Your task to perform on an android device: turn smart compose on in the gmail app Image 0: 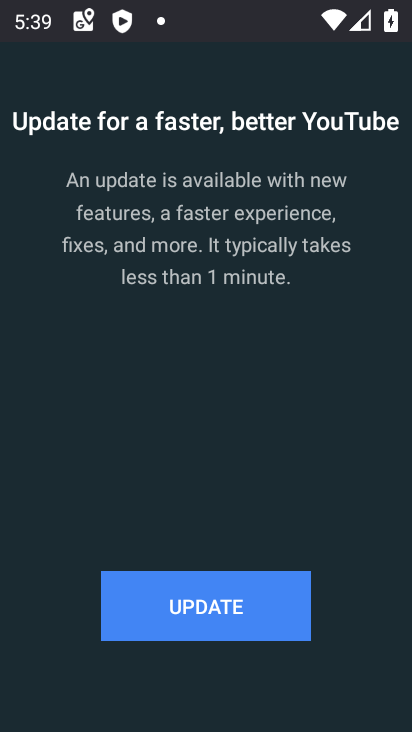
Step 0: press home button
Your task to perform on an android device: turn smart compose on in the gmail app Image 1: 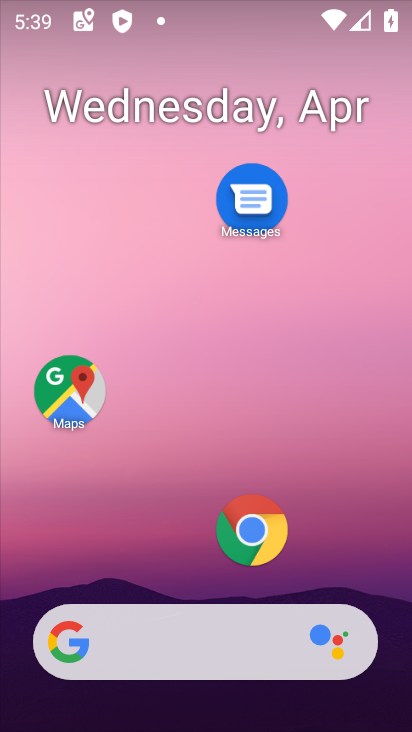
Step 1: drag from (169, 493) to (285, 51)
Your task to perform on an android device: turn smart compose on in the gmail app Image 2: 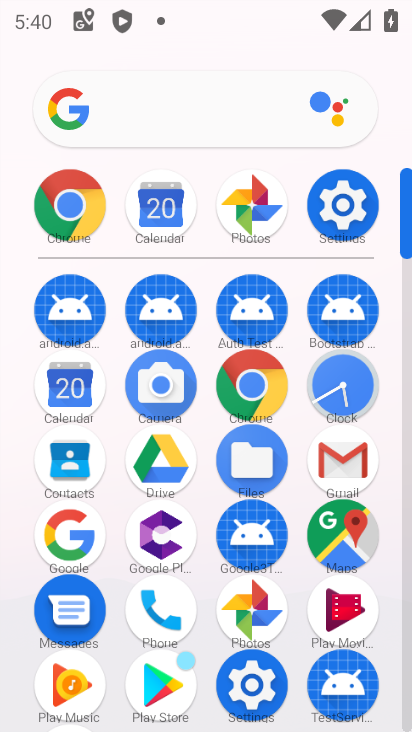
Step 2: click (344, 455)
Your task to perform on an android device: turn smart compose on in the gmail app Image 3: 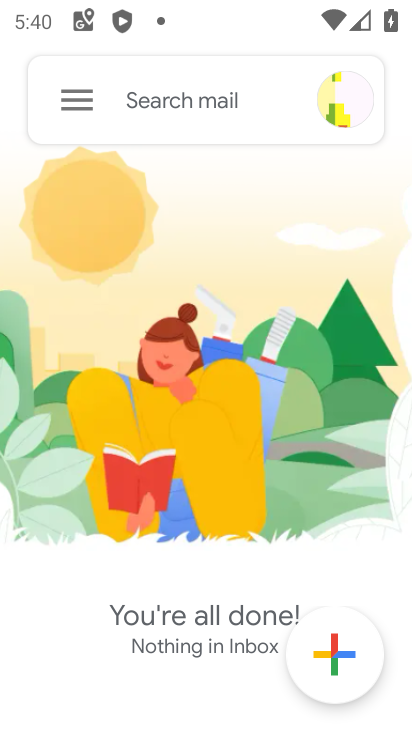
Step 3: click (79, 97)
Your task to perform on an android device: turn smart compose on in the gmail app Image 4: 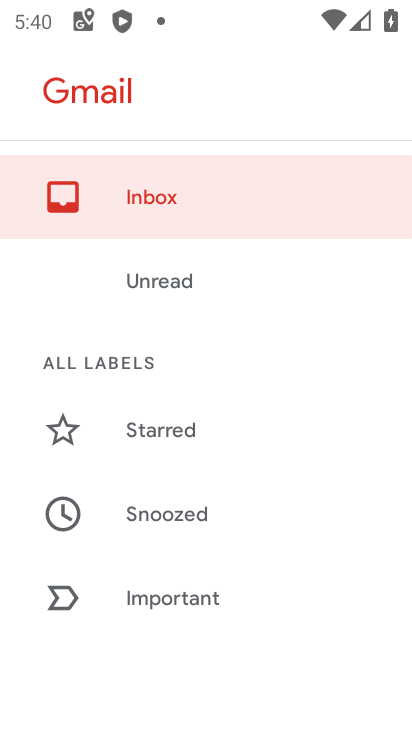
Step 4: drag from (153, 467) to (171, 287)
Your task to perform on an android device: turn smart compose on in the gmail app Image 5: 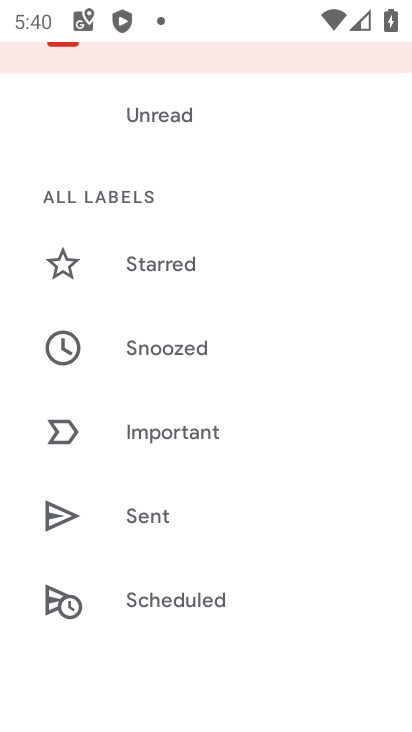
Step 5: drag from (160, 543) to (175, 365)
Your task to perform on an android device: turn smart compose on in the gmail app Image 6: 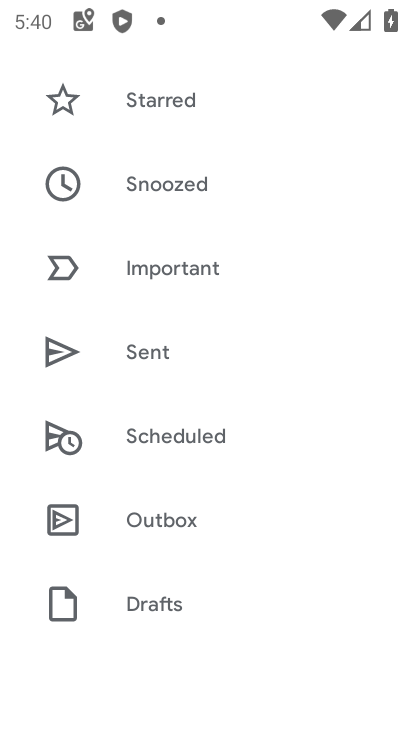
Step 6: drag from (151, 474) to (171, 305)
Your task to perform on an android device: turn smart compose on in the gmail app Image 7: 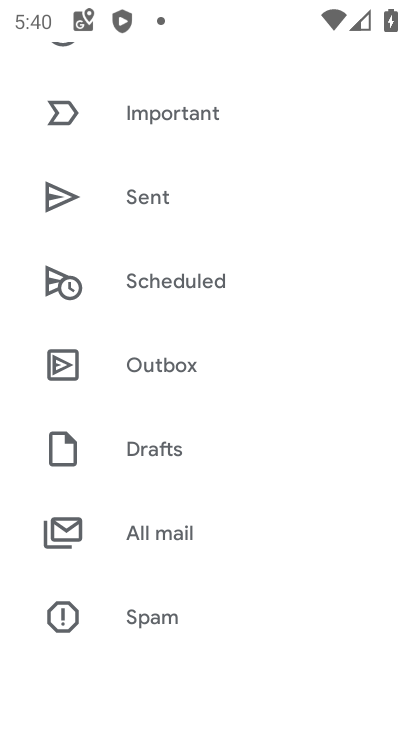
Step 7: drag from (142, 481) to (163, 325)
Your task to perform on an android device: turn smart compose on in the gmail app Image 8: 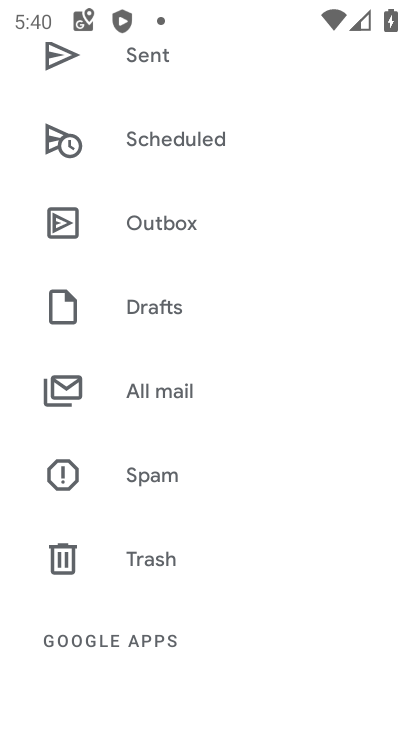
Step 8: drag from (116, 514) to (176, 349)
Your task to perform on an android device: turn smart compose on in the gmail app Image 9: 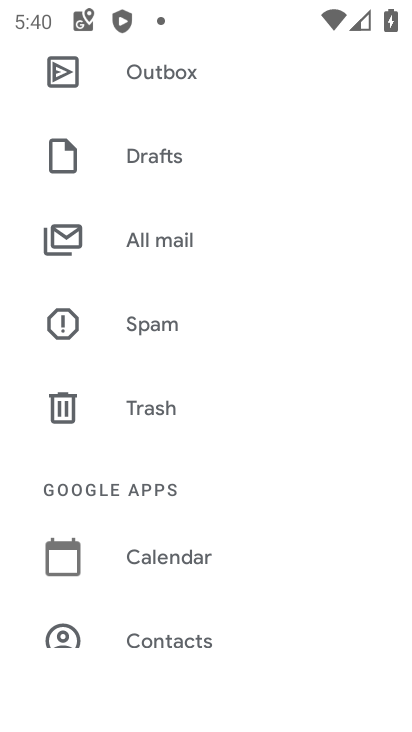
Step 9: drag from (116, 452) to (211, 265)
Your task to perform on an android device: turn smart compose on in the gmail app Image 10: 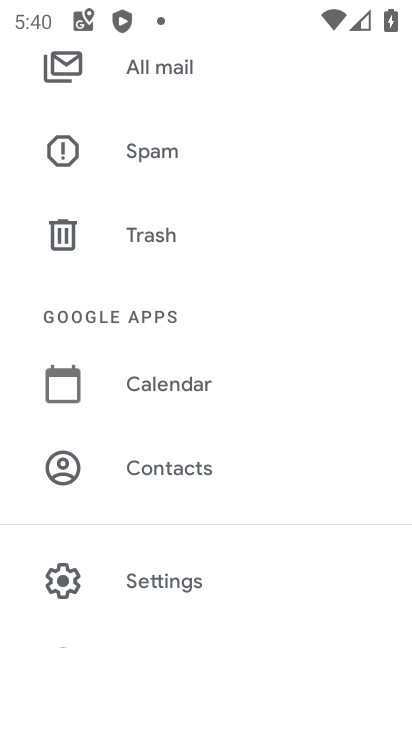
Step 10: click (146, 579)
Your task to perform on an android device: turn smart compose on in the gmail app Image 11: 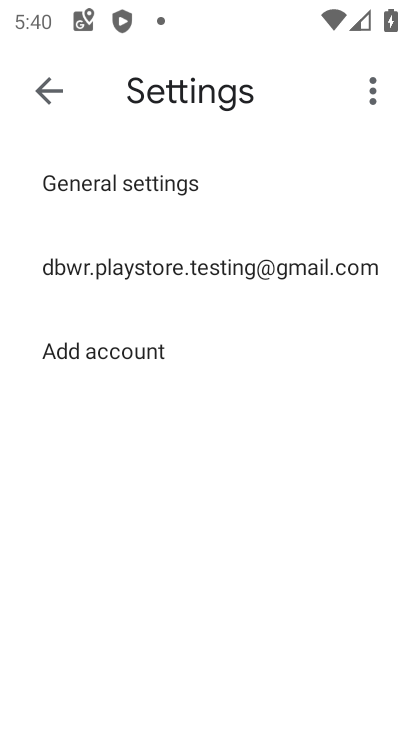
Step 11: click (184, 271)
Your task to perform on an android device: turn smart compose on in the gmail app Image 12: 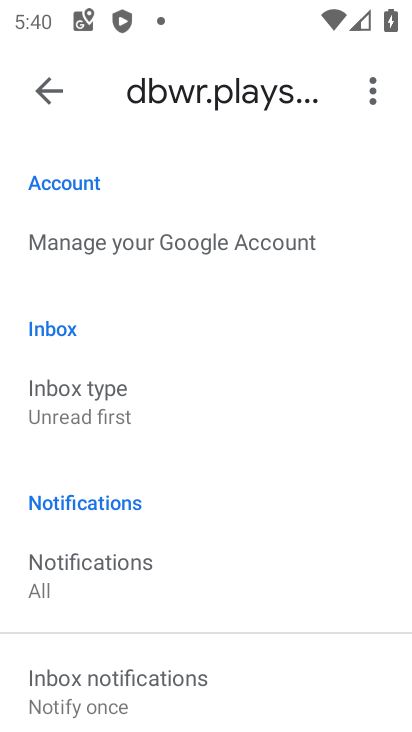
Step 12: task complete